Your task to perform on an android device: check storage Image 0: 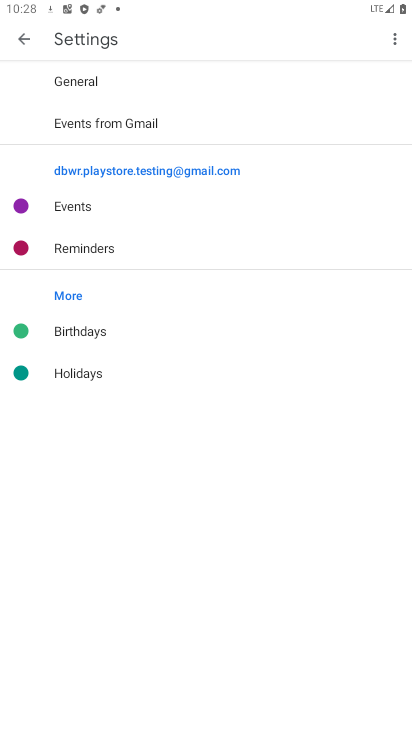
Step 0: press home button
Your task to perform on an android device: check storage Image 1: 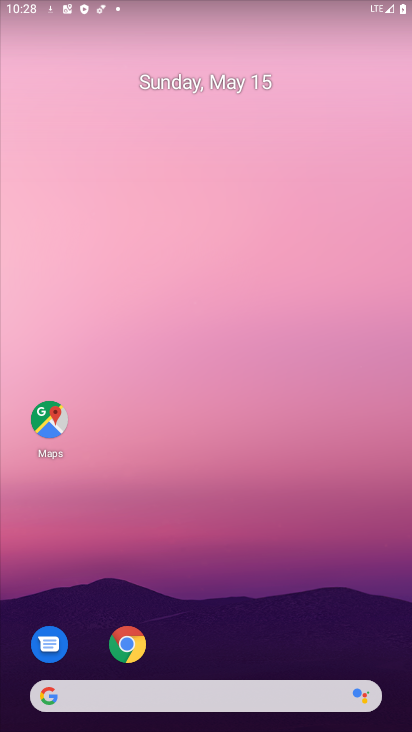
Step 1: drag from (216, 706) to (107, 315)
Your task to perform on an android device: check storage Image 2: 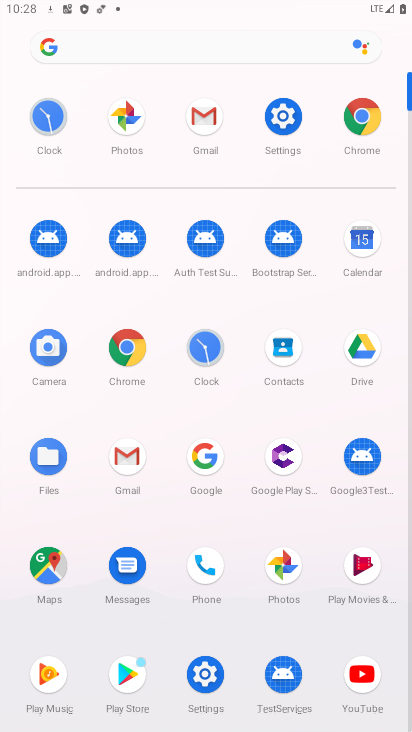
Step 2: click (282, 112)
Your task to perform on an android device: check storage Image 3: 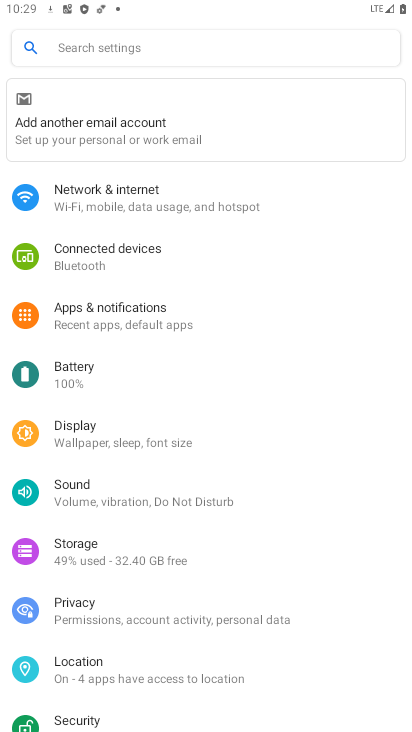
Step 3: click (87, 56)
Your task to perform on an android device: check storage Image 4: 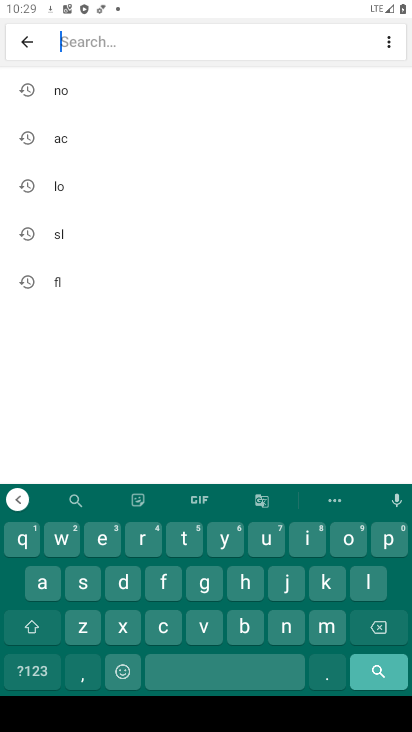
Step 4: click (85, 584)
Your task to perform on an android device: check storage Image 5: 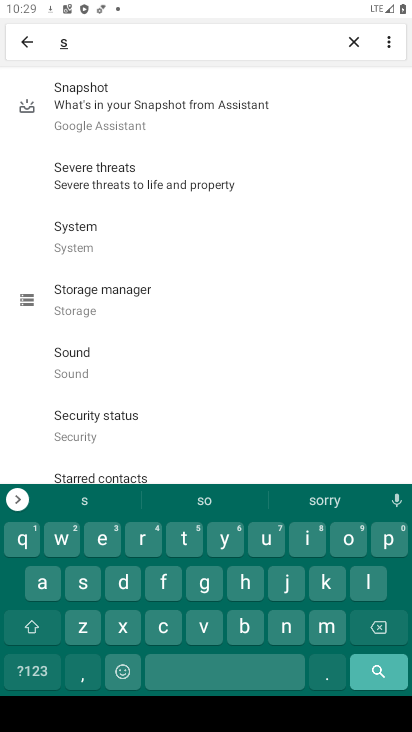
Step 5: click (195, 544)
Your task to perform on an android device: check storage Image 6: 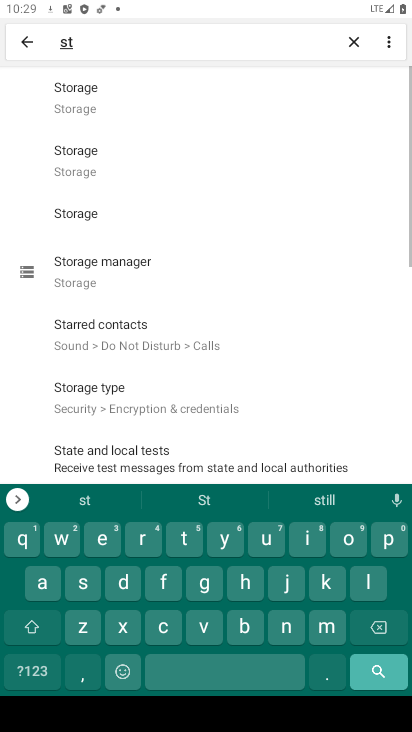
Step 6: click (141, 100)
Your task to perform on an android device: check storage Image 7: 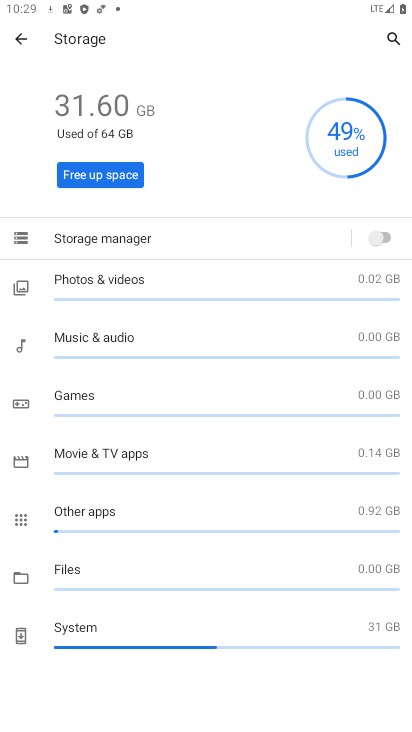
Step 7: task complete